Your task to perform on an android device: Set the phone to "Do not disturb". Image 0: 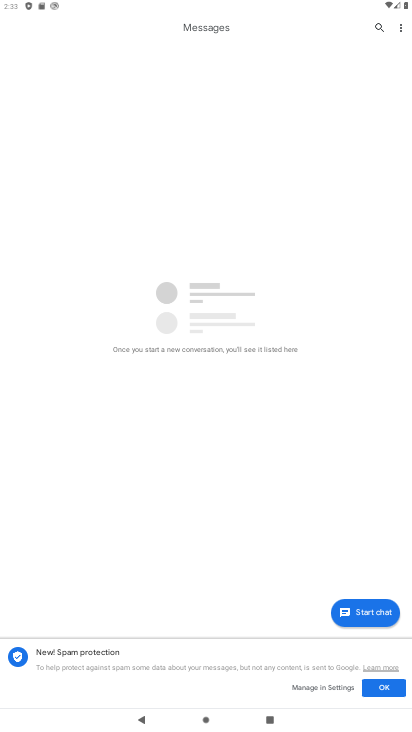
Step 0: drag from (173, 8) to (242, 479)
Your task to perform on an android device: Set the phone to "Do not disturb". Image 1: 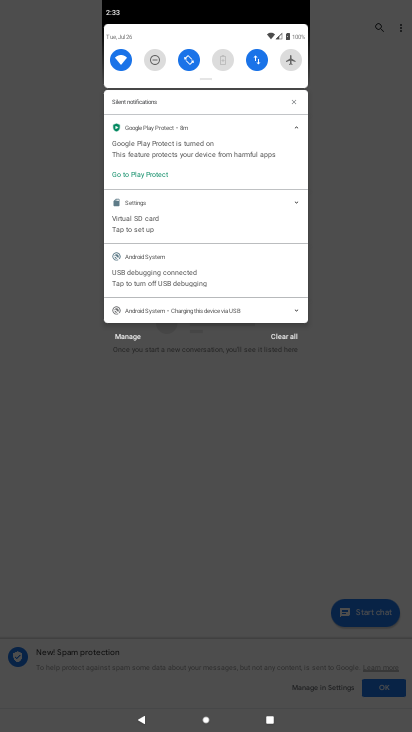
Step 1: click (158, 67)
Your task to perform on an android device: Set the phone to "Do not disturb". Image 2: 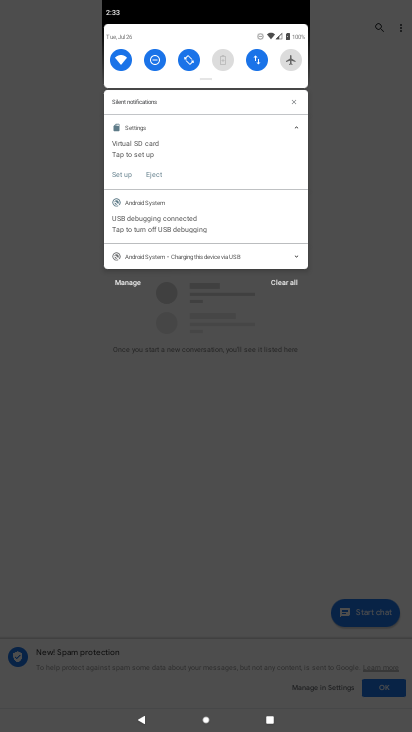
Step 2: task complete